Your task to perform on an android device: Turn off the flashlight Image 0: 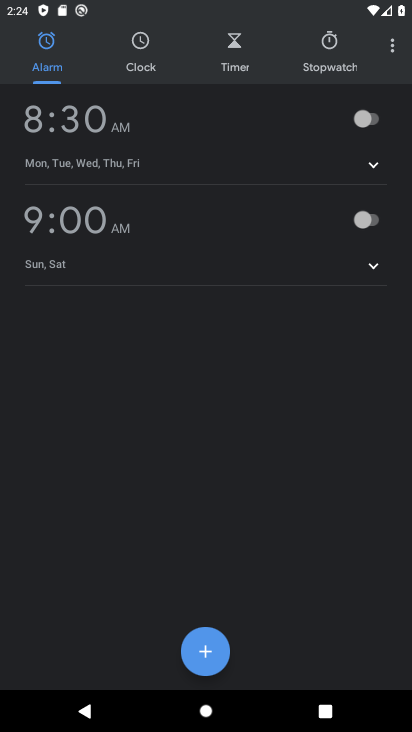
Step 0: press back button
Your task to perform on an android device: Turn off the flashlight Image 1: 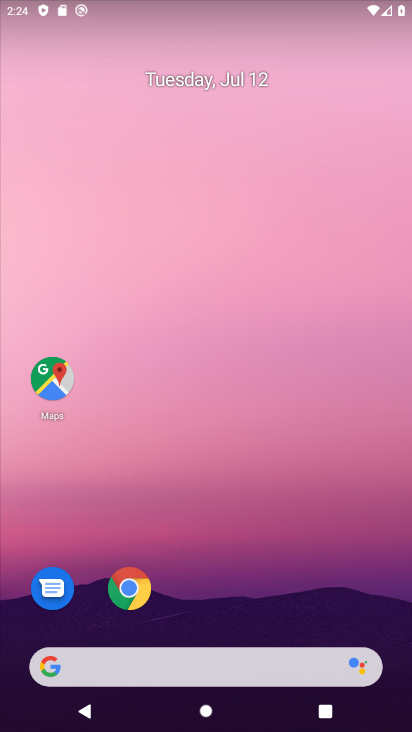
Step 1: task complete